Your task to perform on an android device: toggle wifi Image 0: 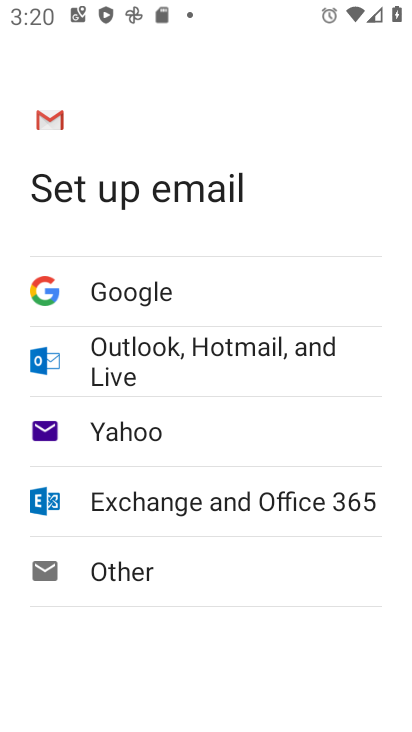
Step 0: press home button
Your task to perform on an android device: toggle wifi Image 1: 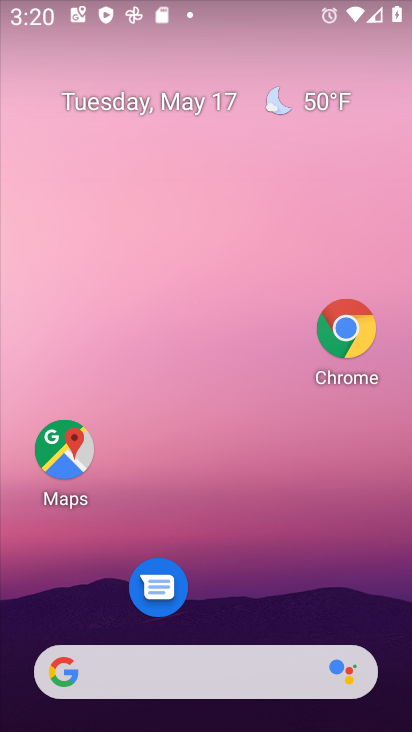
Step 1: drag from (264, 600) to (265, 19)
Your task to perform on an android device: toggle wifi Image 2: 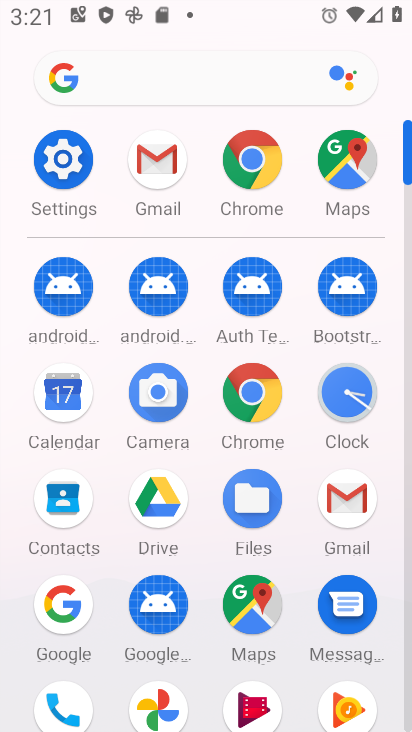
Step 2: click (70, 147)
Your task to perform on an android device: toggle wifi Image 3: 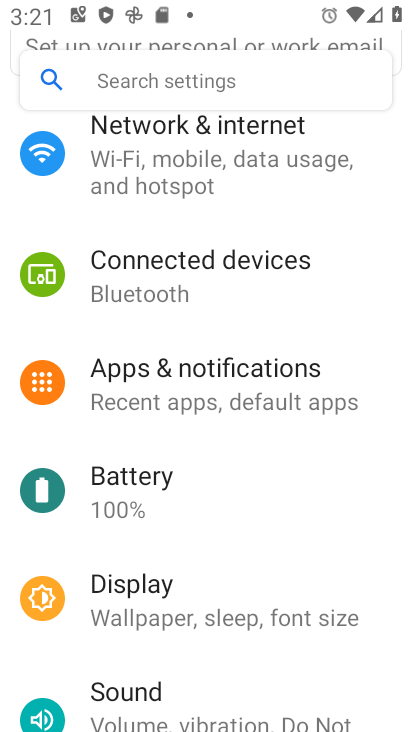
Step 3: drag from (135, 182) to (146, 703)
Your task to perform on an android device: toggle wifi Image 4: 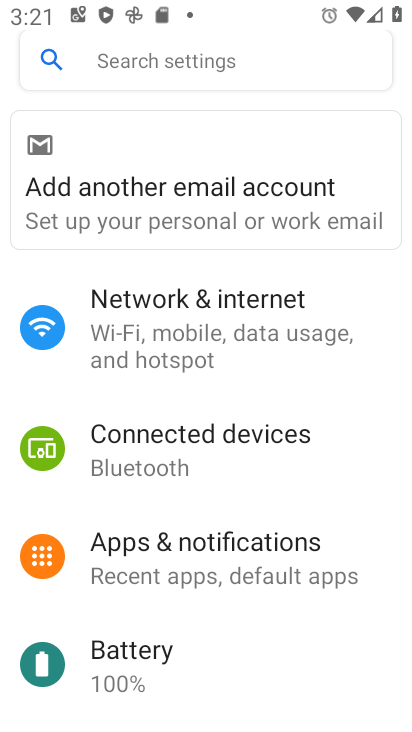
Step 4: click (238, 400)
Your task to perform on an android device: toggle wifi Image 5: 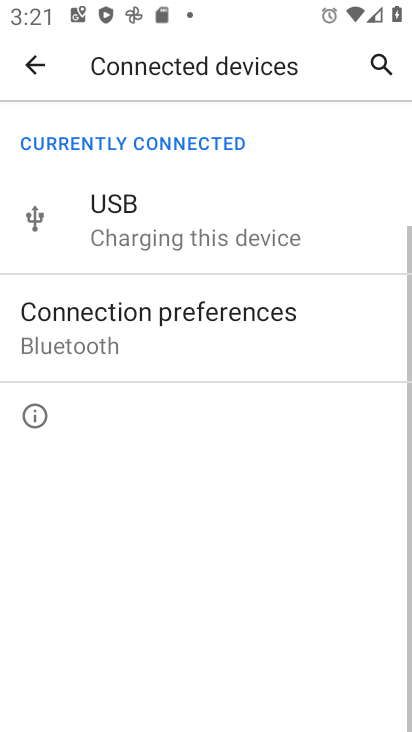
Step 5: click (35, 66)
Your task to perform on an android device: toggle wifi Image 6: 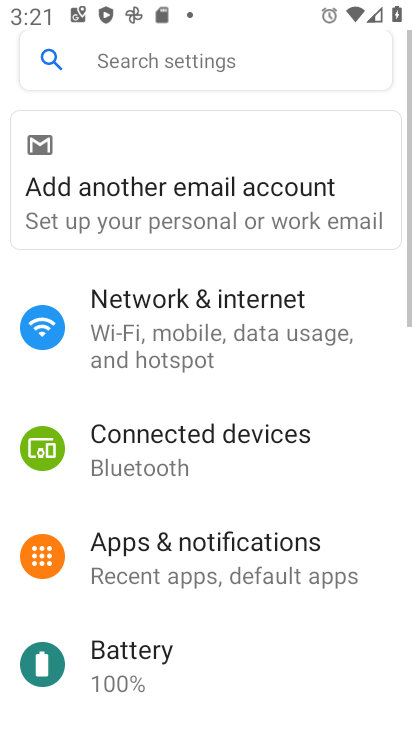
Step 6: click (176, 327)
Your task to perform on an android device: toggle wifi Image 7: 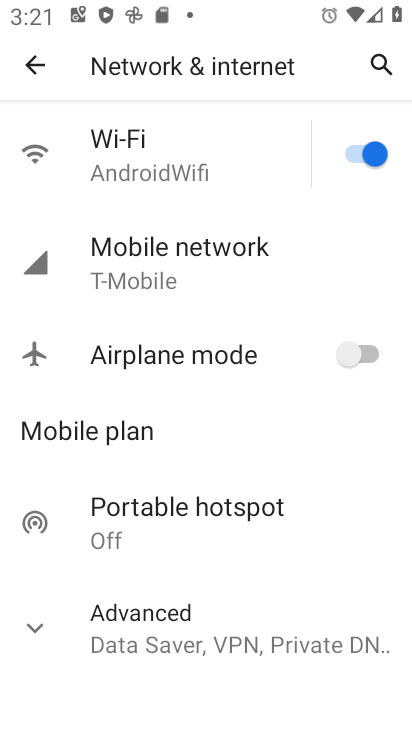
Step 7: click (194, 174)
Your task to perform on an android device: toggle wifi Image 8: 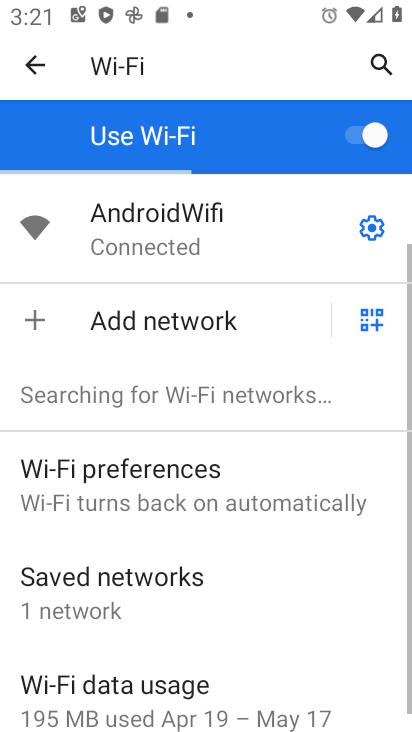
Step 8: click (364, 127)
Your task to perform on an android device: toggle wifi Image 9: 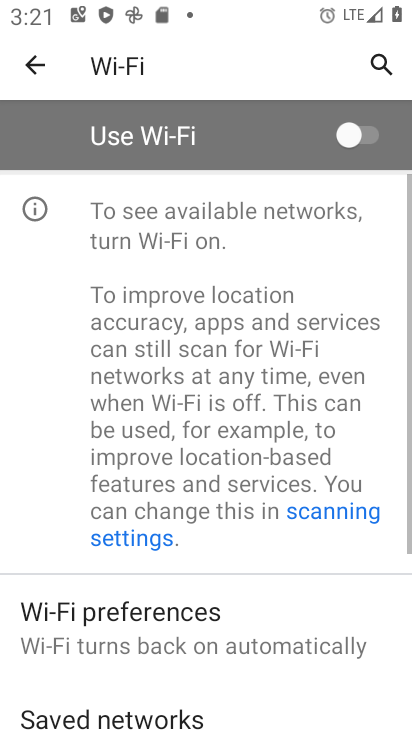
Step 9: task complete